Your task to perform on an android device: Show me popular videos on Youtube Image 0: 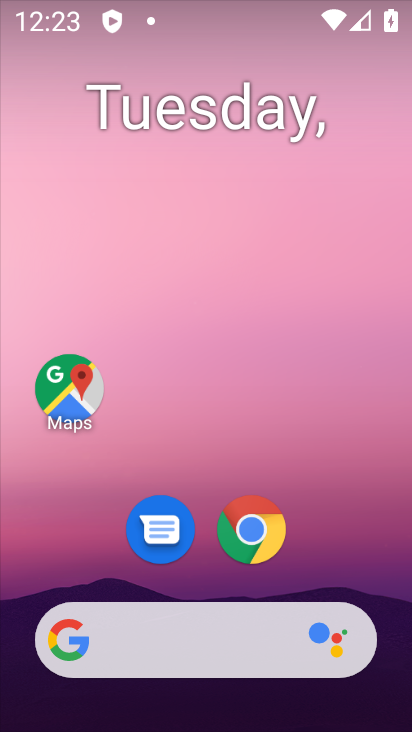
Step 0: drag from (342, 523) to (389, 24)
Your task to perform on an android device: Show me popular videos on Youtube Image 1: 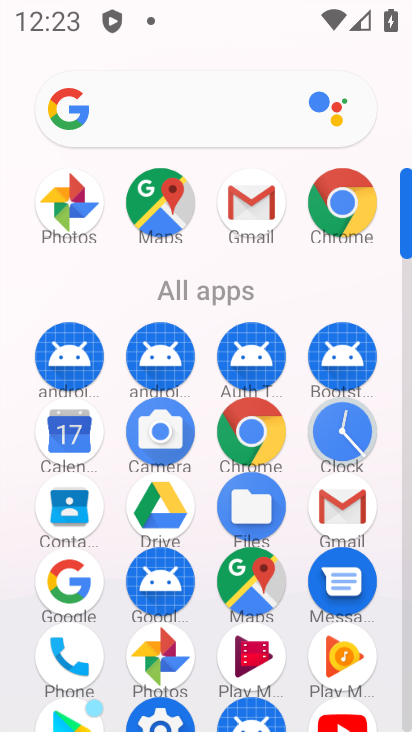
Step 1: drag from (398, 633) to (383, 232)
Your task to perform on an android device: Show me popular videos on Youtube Image 2: 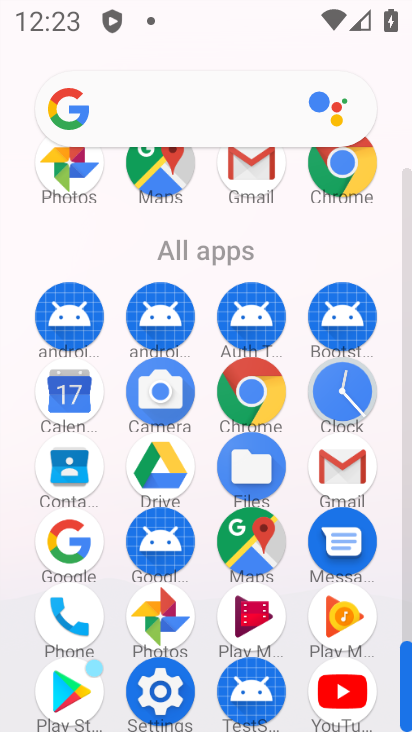
Step 2: click (352, 689)
Your task to perform on an android device: Show me popular videos on Youtube Image 3: 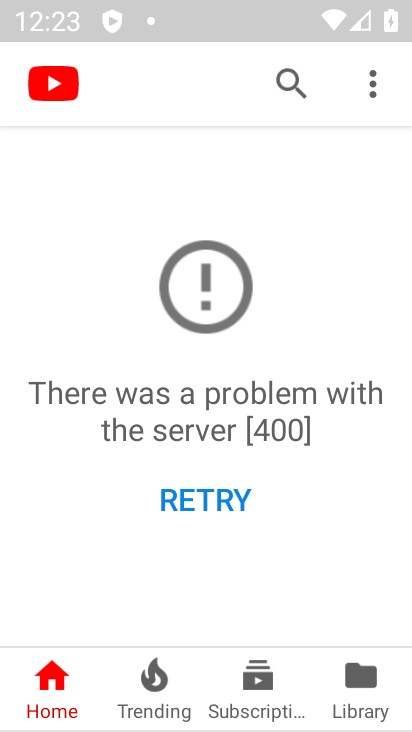
Step 3: click (299, 82)
Your task to perform on an android device: Show me popular videos on Youtube Image 4: 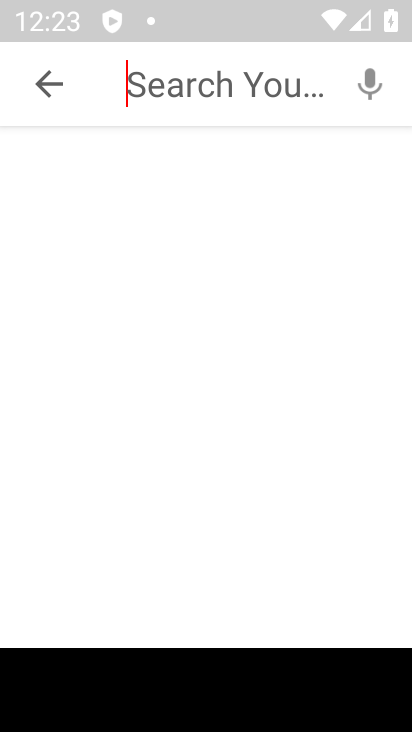
Step 4: type "popular videos"
Your task to perform on an android device: Show me popular videos on Youtube Image 5: 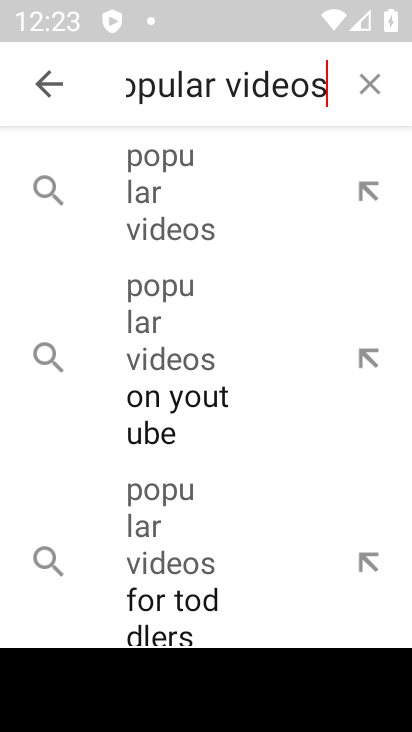
Step 5: click (216, 200)
Your task to perform on an android device: Show me popular videos on Youtube Image 6: 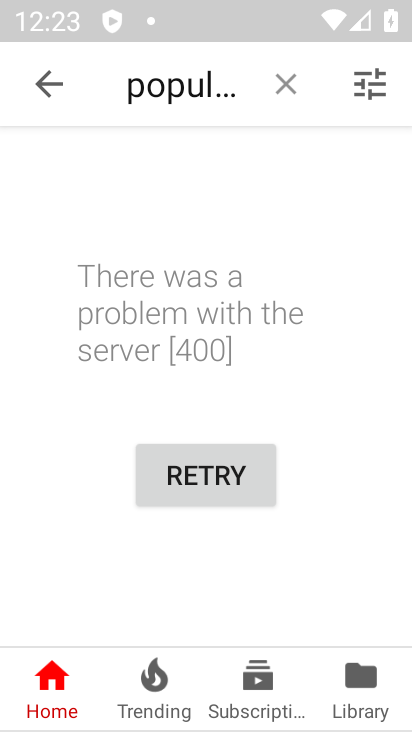
Step 6: click (206, 489)
Your task to perform on an android device: Show me popular videos on Youtube Image 7: 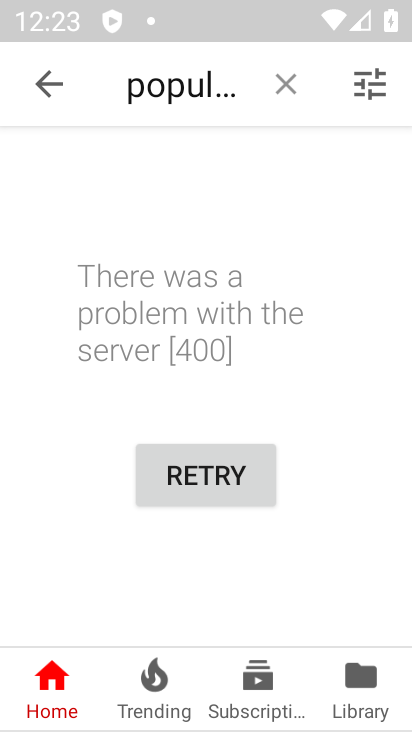
Step 7: click (227, 474)
Your task to perform on an android device: Show me popular videos on Youtube Image 8: 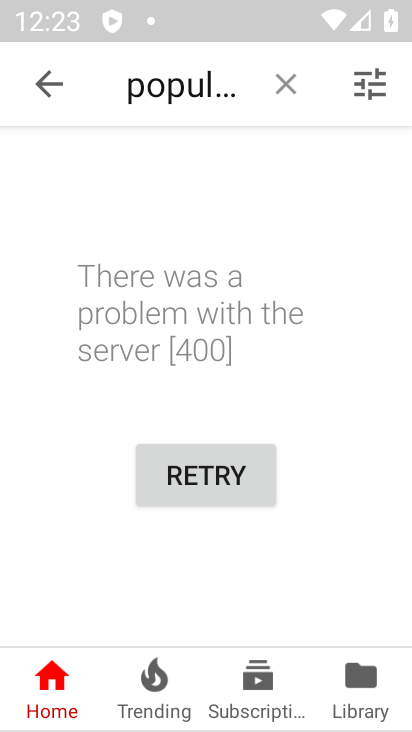
Step 8: task complete